Your task to perform on an android device: change the clock display to digital Image 0: 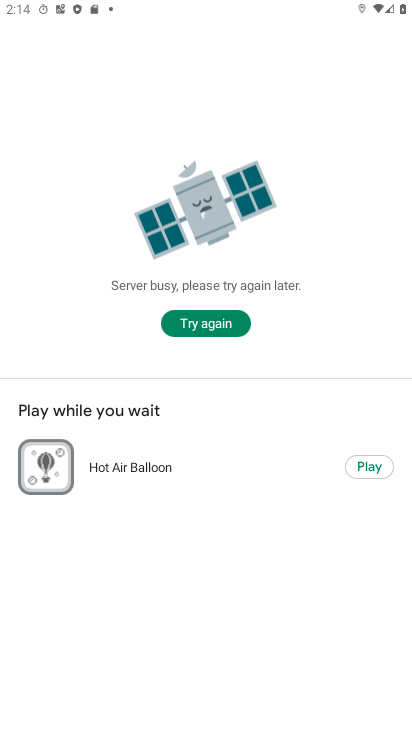
Step 0: press home button
Your task to perform on an android device: change the clock display to digital Image 1: 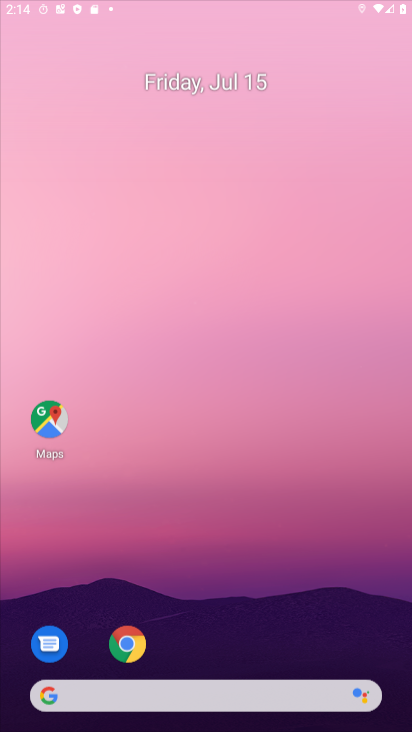
Step 1: drag from (396, 707) to (365, 21)
Your task to perform on an android device: change the clock display to digital Image 2: 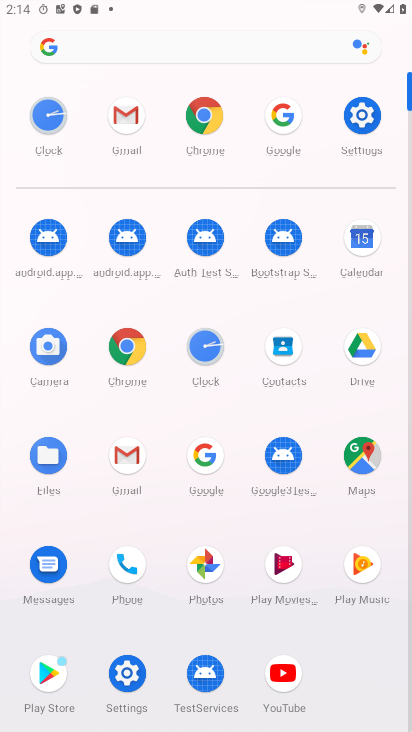
Step 2: click (50, 102)
Your task to perform on an android device: change the clock display to digital Image 3: 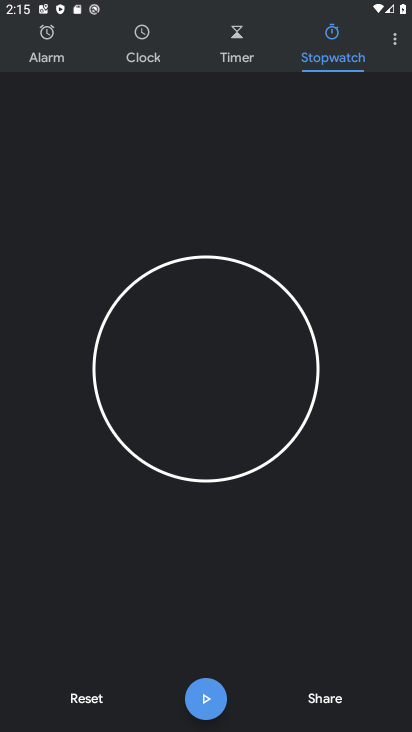
Step 3: click (400, 38)
Your task to perform on an android device: change the clock display to digital Image 4: 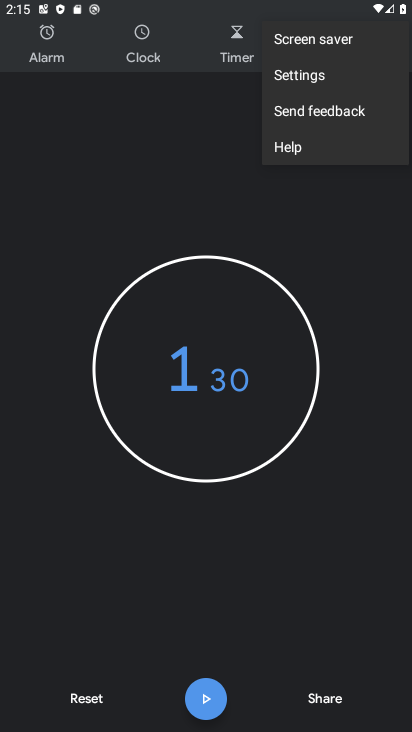
Step 4: click (340, 75)
Your task to perform on an android device: change the clock display to digital Image 5: 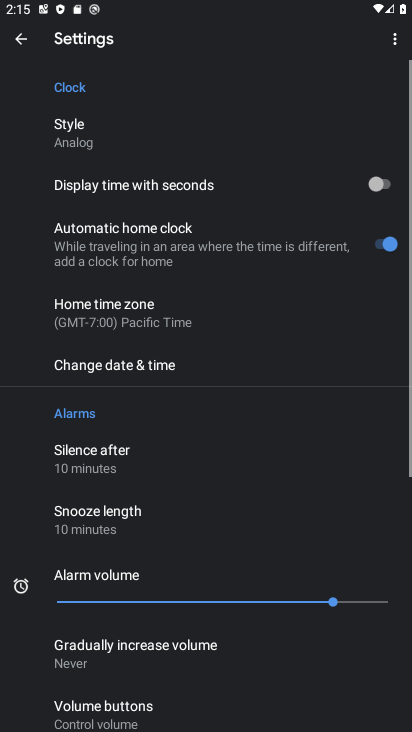
Step 5: click (79, 138)
Your task to perform on an android device: change the clock display to digital Image 6: 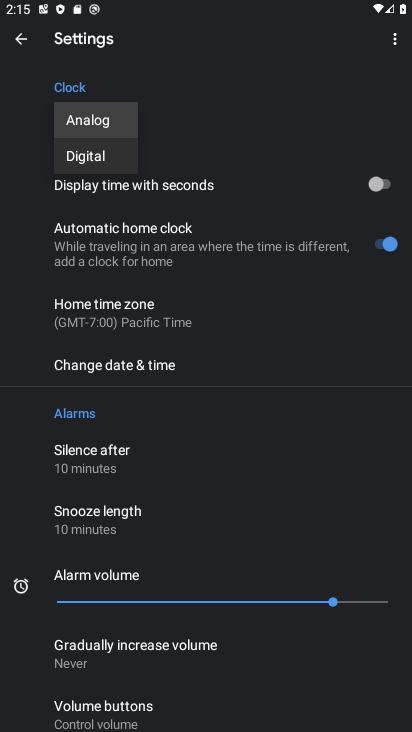
Step 6: click (89, 159)
Your task to perform on an android device: change the clock display to digital Image 7: 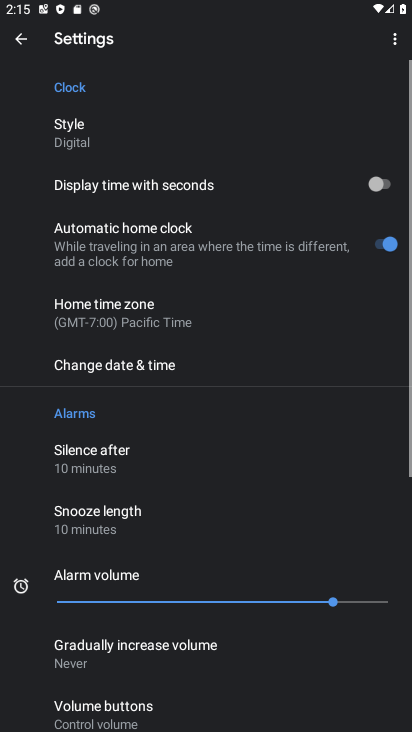
Step 7: task complete